Your task to perform on an android device: Open settings on Google Maps Image 0: 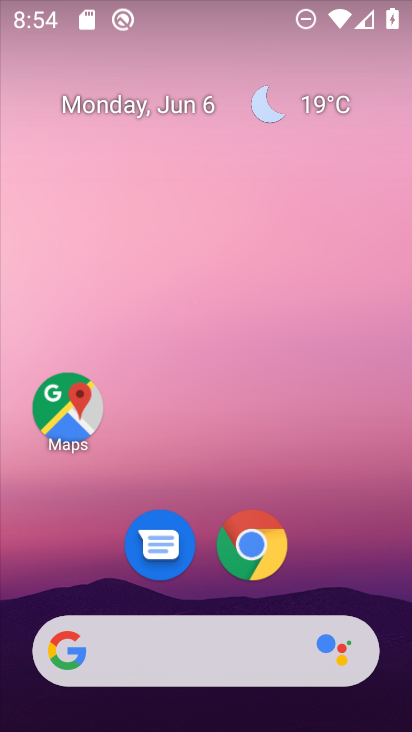
Step 0: click (60, 400)
Your task to perform on an android device: Open settings on Google Maps Image 1: 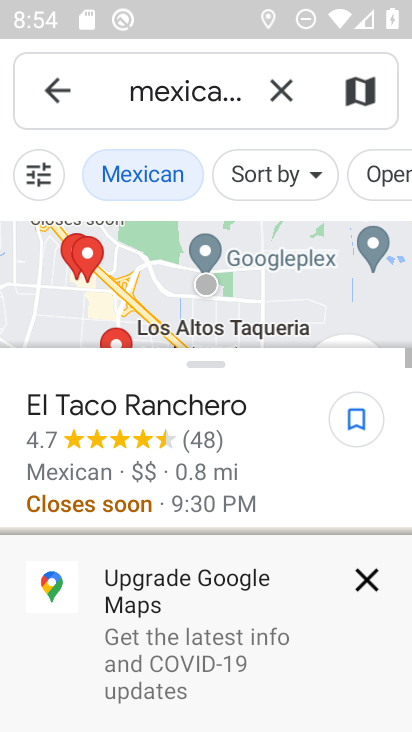
Step 1: click (55, 78)
Your task to perform on an android device: Open settings on Google Maps Image 2: 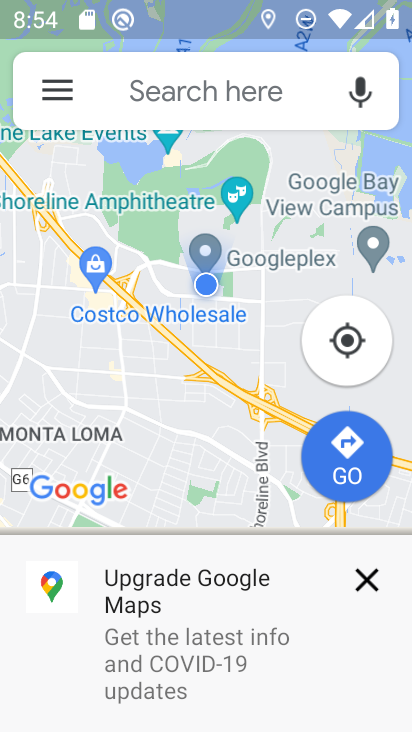
Step 2: click (43, 95)
Your task to perform on an android device: Open settings on Google Maps Image 3: 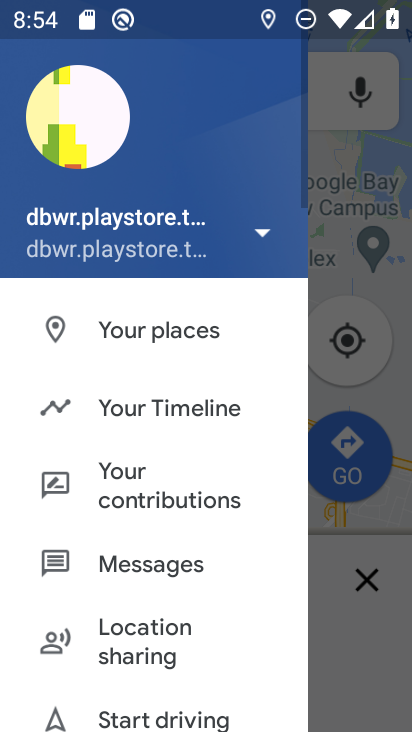
Step 3: drag from (117, 608) to (151, 240)
Your task to perform on an android device: Open settings on Google Maps Image 4: 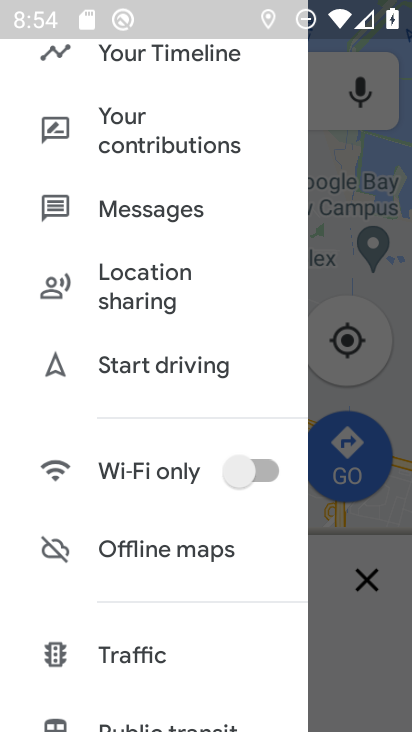
Step 4: drag from (144, 605) to (152, 168)
Your task to perform on an android device: Open settings on Google Maps Image 5: 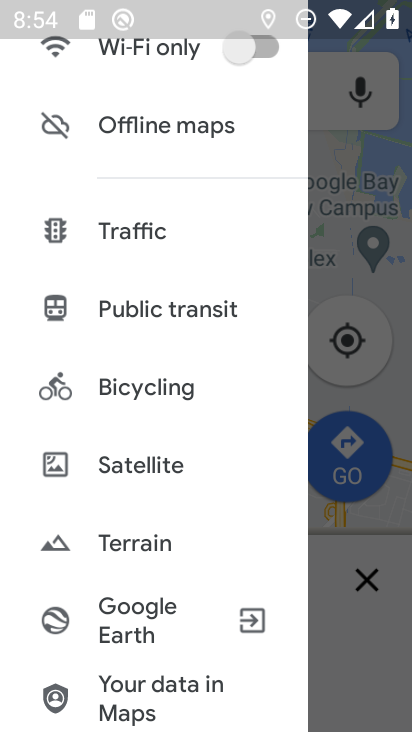
Step 5: drag from (153, 623) to (211, 281)
Your task to perform on an android device: Open settings on Google Maps Image 6: 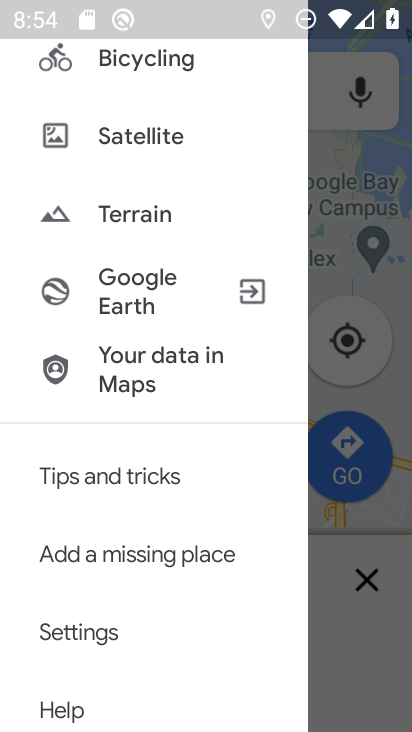
Step 6: click (94, 644)
Your task to perform on an android device: Open settings on Google Maps Image 7: 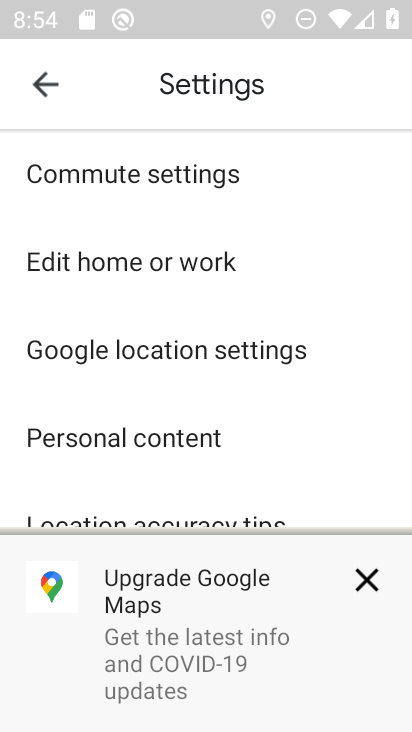
Step 7: click (351, 564)
Your task to perform on an android device: Open settings on Google Maps Image 8: 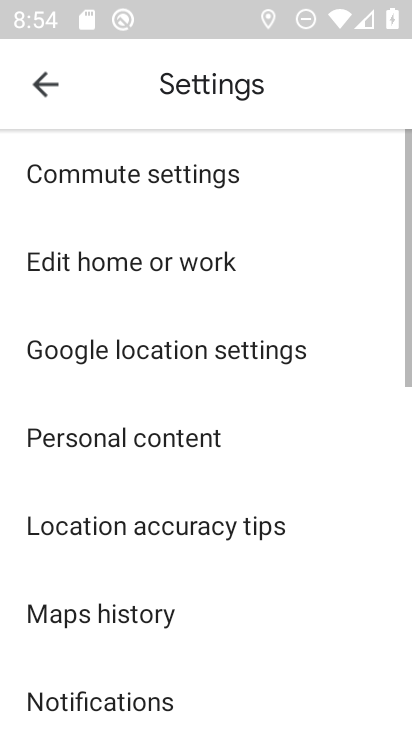
Step 8: task complete